Your task to perform on an android device: turn on data saver in the chrome app Image 0: 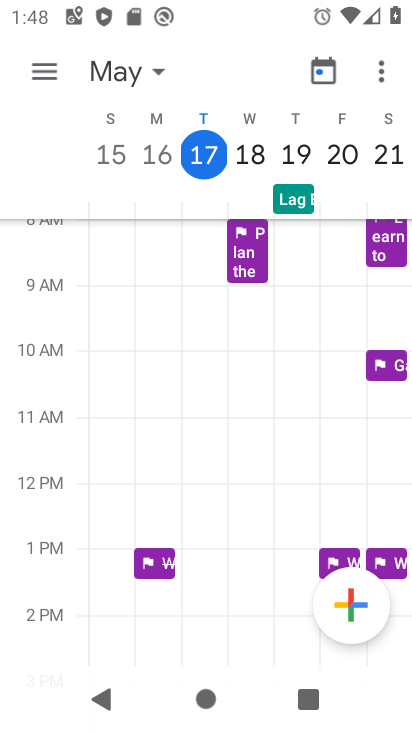
Step 0: press home button
Your task to perform on an android device: turn on data saver in the chrome app Image 1: 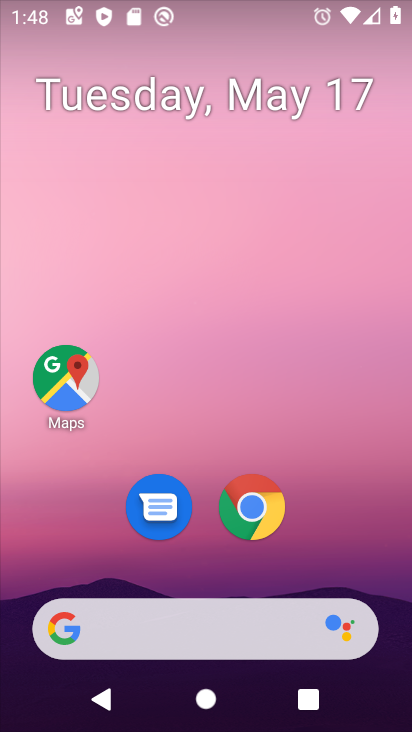
Step 1: click (228, 499)
Your task to perform on an android device: turn on data saver in the chrome app Image 2: 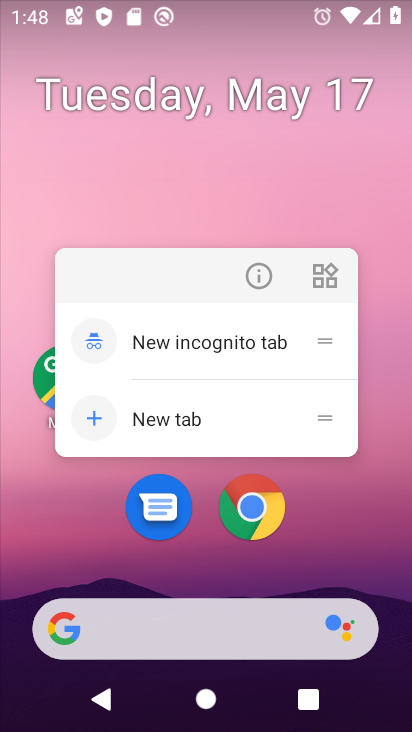
Step 2: click (239, 505)
Your task to perform on an android device: turn on data saver in the chrome app Image 3: 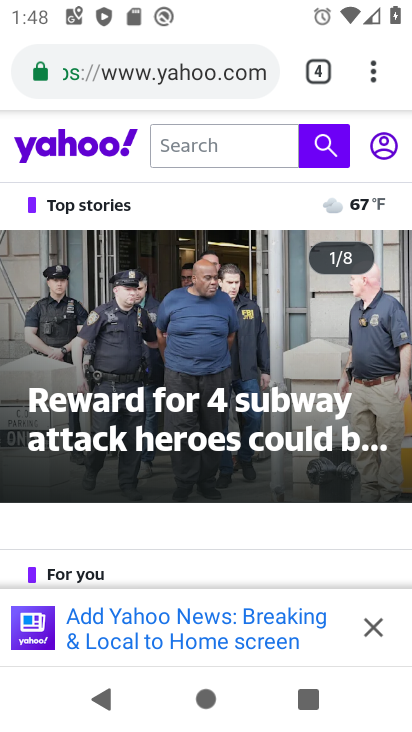
Step 3: click (380, 61)
Your task to perform on an android device: turn on data saver in the chrome app Image 4: 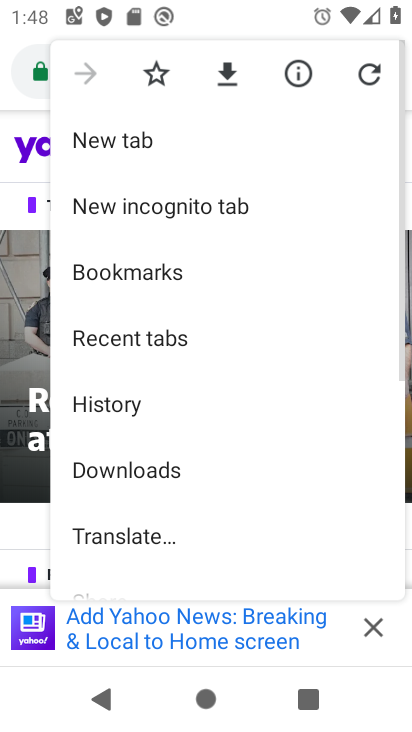
Step 4: drag from (173, 515) to (245, 175)
Your task to perform on an android device: turn on data saver in the chrome app Image 5: 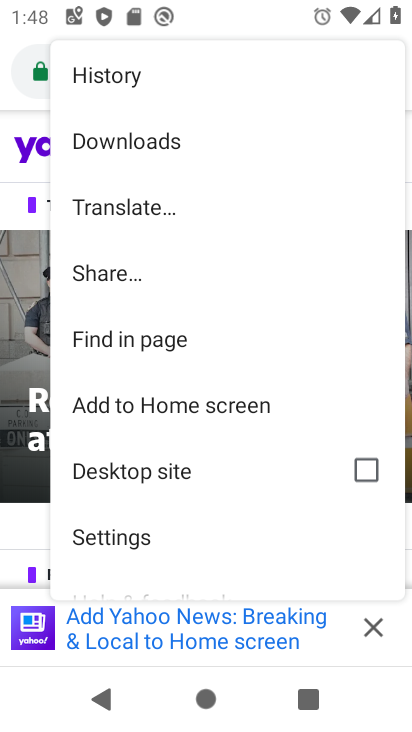
Step 5: drag from (85, 505) to (171, 325)
Your task to perform on an android device: turn on data saver in the chrome app Image 6: 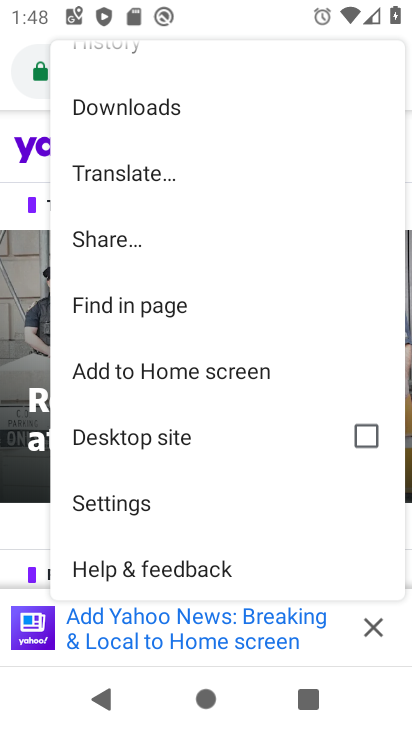
Step 6: click (95, 495)
Your task to perform on an android device: turn on data saver in the chrome app Image 7: 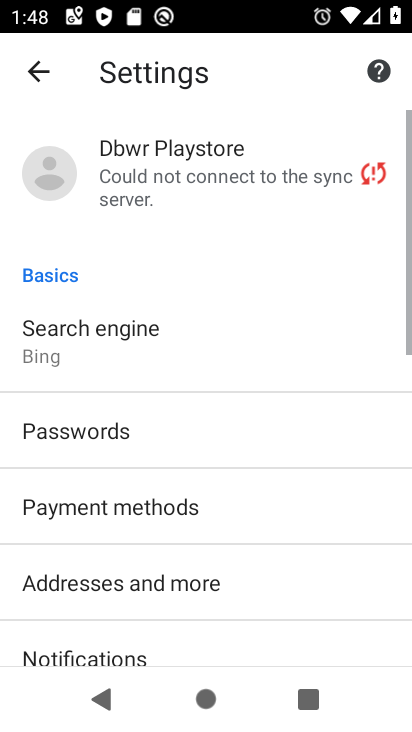
Step 7: drag from (194, 547) to (286, 180)
Your task to perform on an android device: turn on data saver in the chrome app Image 8: 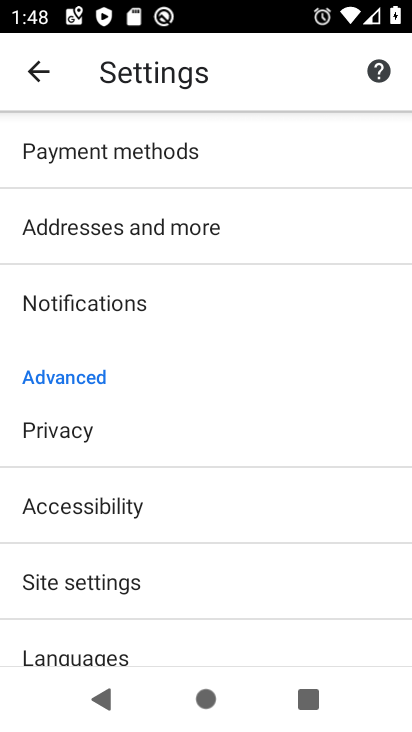
Step 8: drag from (114, 576) to (261, 188)
Your task to perform on an android device: turn on data saver in the chrome app Image 9: 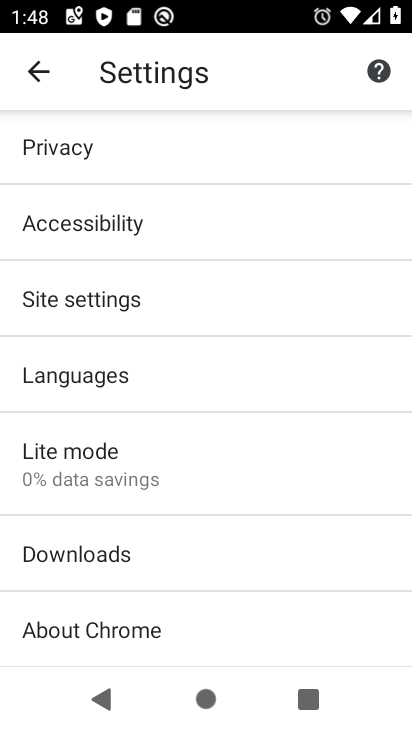
Step 9: click (106, 442)
Your task to perform on an android device: turn on data saver in the chrome app Image 10: 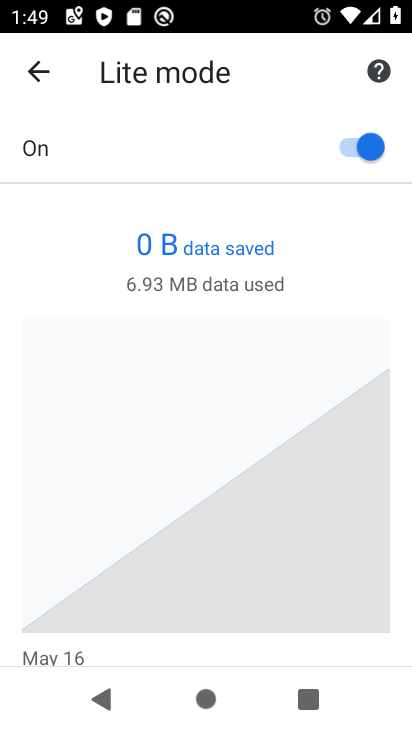
Step 10: task complete